Your task to perform on an android device: check storage Image 0: 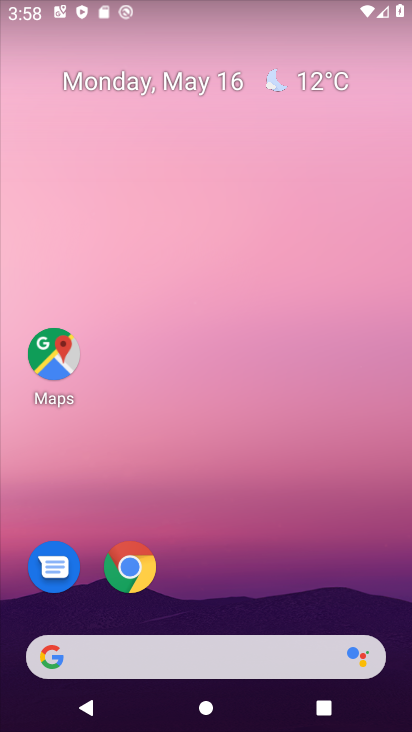
Step 0: drag from (242, 570) to (239, 30)
Your task to perform on an android device: check storage Image 1: 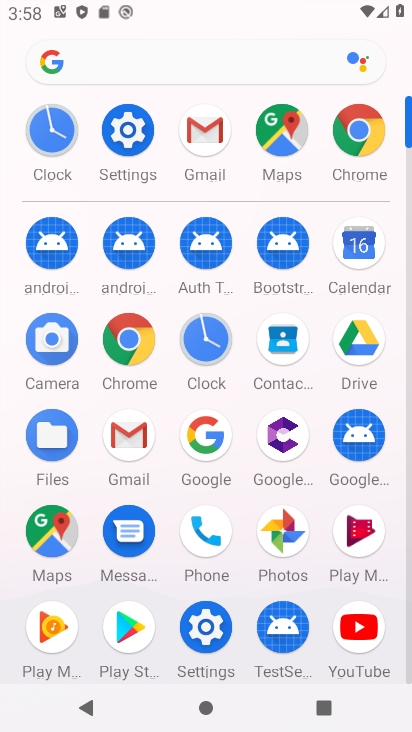
Step 1: click (208, 626)
Your task to perform on an android device: check storage Image 2: 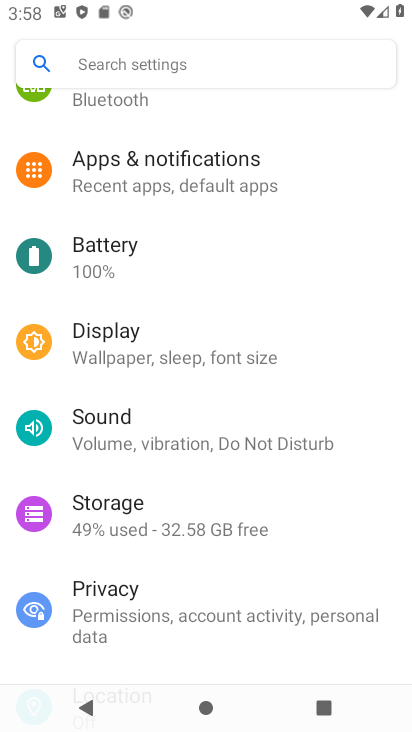
Step 2: click (161, 509)
Your task to perform on an android device: check storage Image 3: 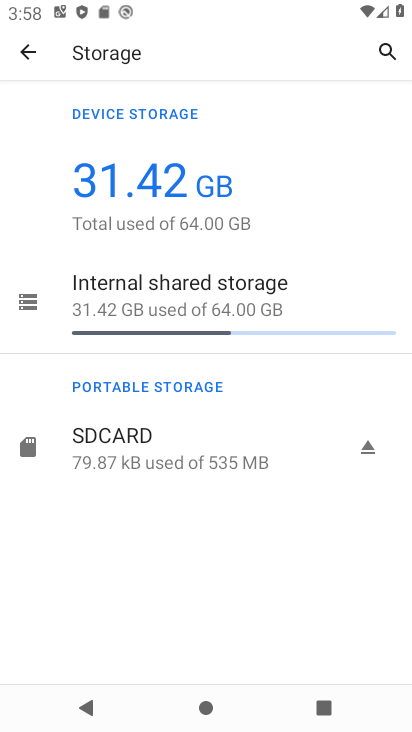
Step 3: task complete